Your task to perform on an android device: Open the calendar and show me this week's events Image 0: 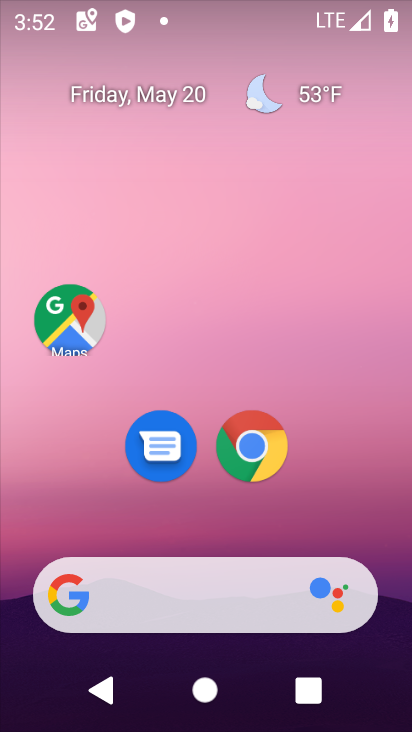
Step 0: drag from (397, 264) to (334, 62)
Your task to perform on an android device: Open the calendar and show me this week's events Image 1: 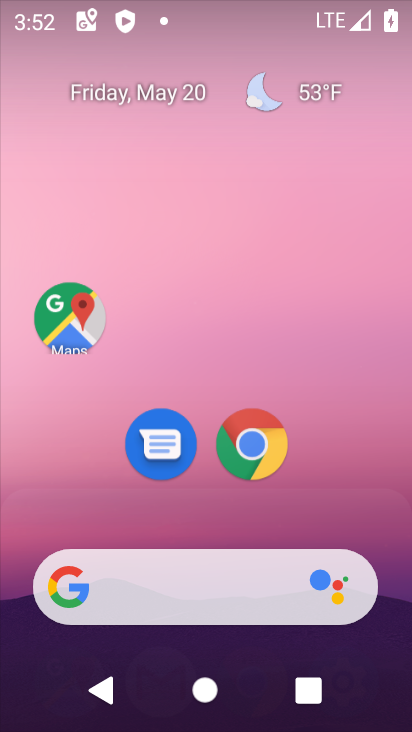
Step 1: click (345, 430)
Your task to perform on an android device: Open the calendar and show me this week's events Image 2: 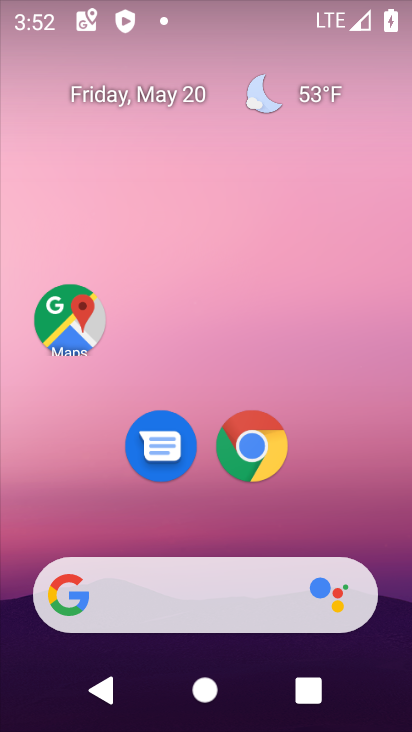
Step 2: drag from (409, 247) to (411, 145)
Your task to perform on an android device: Open the calendar and show me this week's events Image 3: 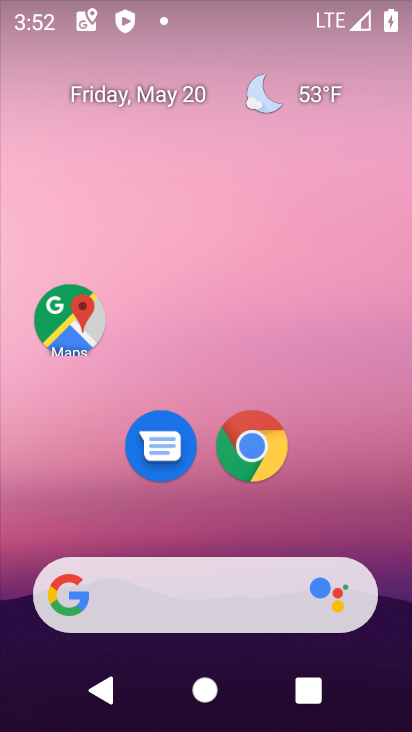
Step 3: drag from (321, 526) to (346, 68)
Your task to perform on an android device: Open the calendar and show me this week's events Image 4: 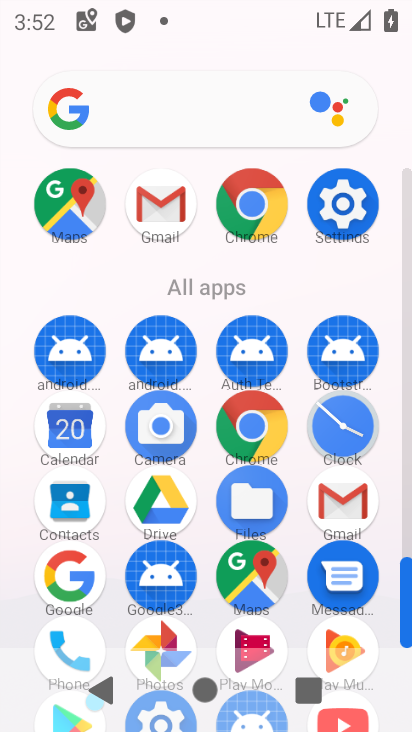
Step 4: drag from (392, 528) to (412, 331)
Your task to perform on an android device: Open the calendar and show me this week's events Image 5: 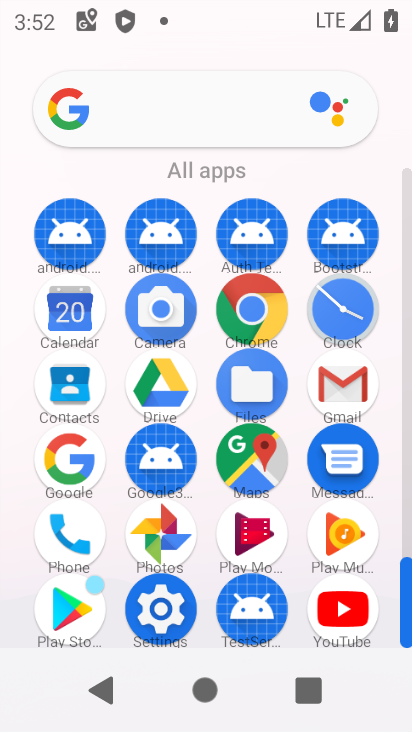
Step 5: click (59, 313)
Your task to perform on an android device: Open the calendar and show me this week's events Image 6: 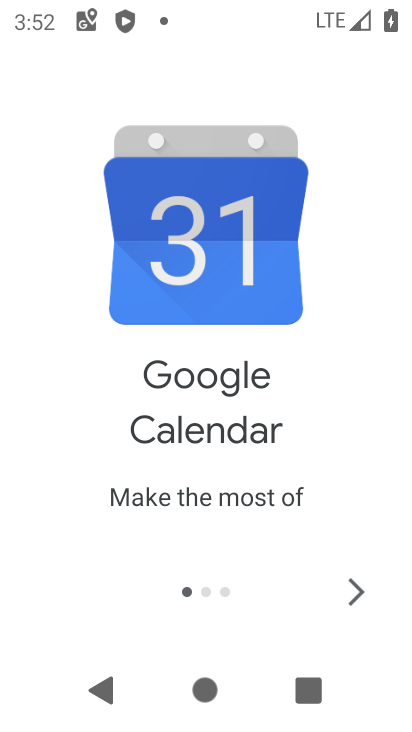
Step 6: click (351, 592)
Your task to perform on an android device: Open the calendar and show me this week's events Image 7: 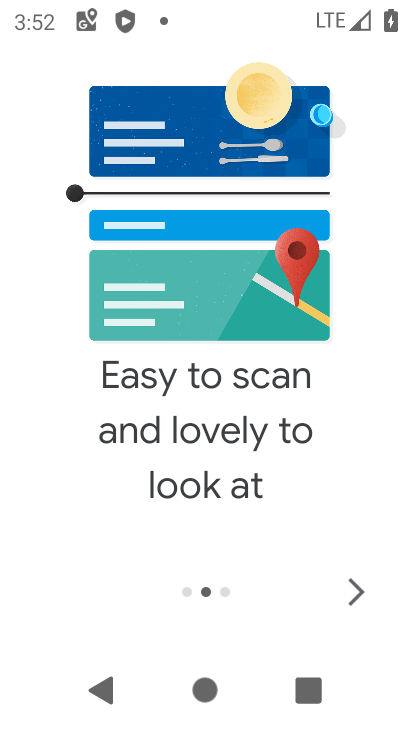
Step 7: click (352, 606)
Your task to perform on an android device: Open the calendar and show me this week's events Image 8: 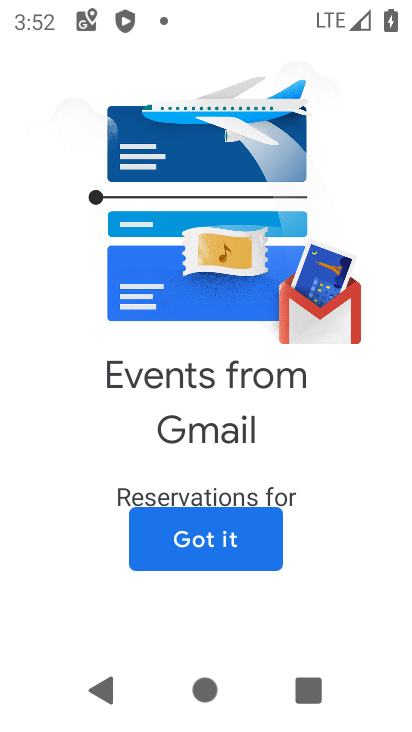
Step 8: click (212, 584)
Your task to perform on an android device: Open the calendar and show me this week's events Image 9: 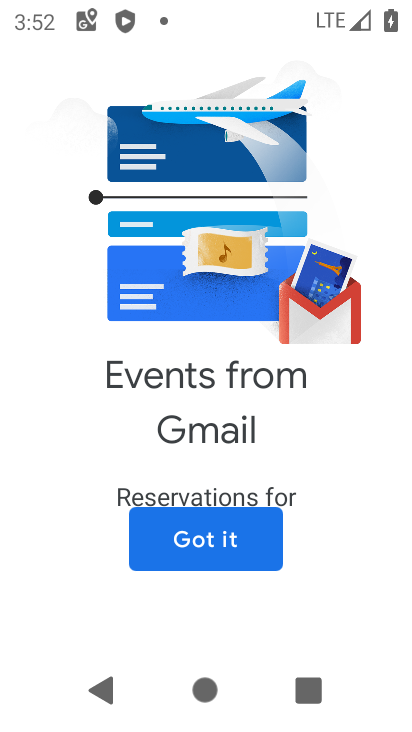
Step 9: click (223, 552)
Your task to perform on an android device: Open the calendar and show me this week's events Image 10: 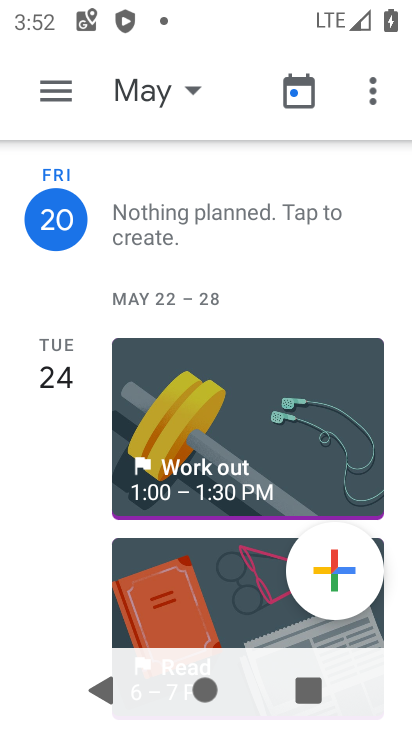
Step 10: click (180, 89)
Your task to perform on an android device: Open the calendar and show me this week's events Image 11: 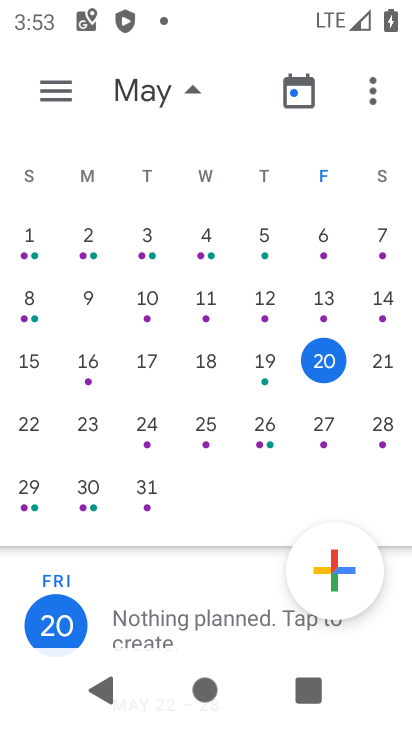
Step 11: task complete